Your task to perform on an android device: change the clock style Image 0: 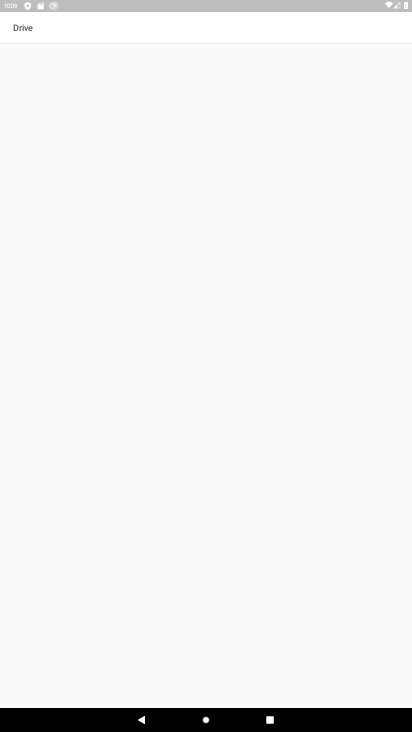
Step 0: press home button
Your task to perform on an android device: change the clock style Image 1: 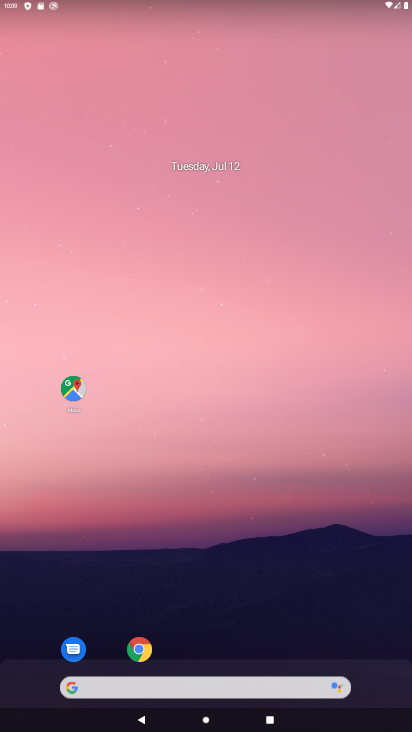
Step 1: drag from (366, 657) to (337, 112)
Your task to perform on an android device: change the clock style Image 2: 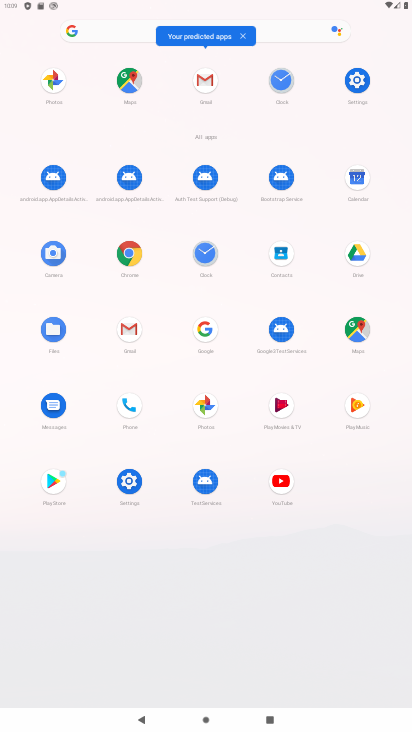
Step 2: click (204, 252)
Your task to perform on an android device: change the clock style Image 3: 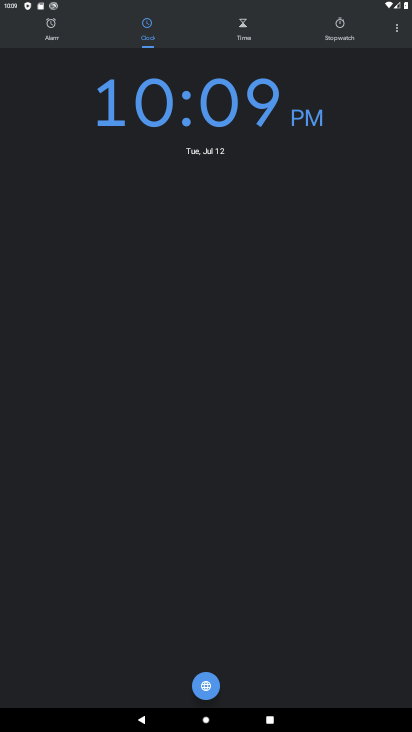
Step 3: click (397, 33)
Your task to perform on an android device: change the clock style Image 4: 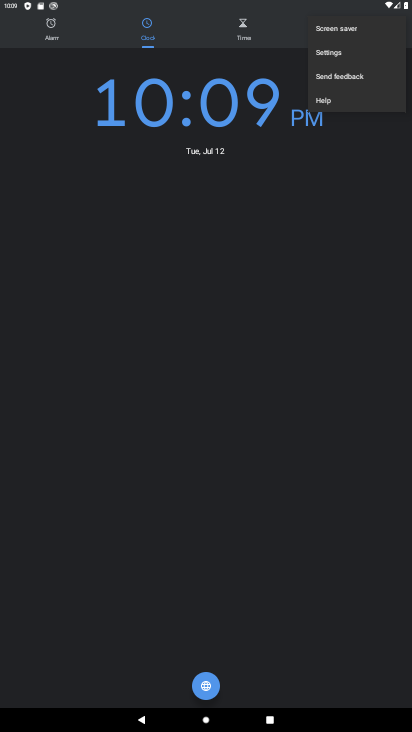
Step 4: click (324, 54)
Your task to perform on an android device: change the clock style Image 5: 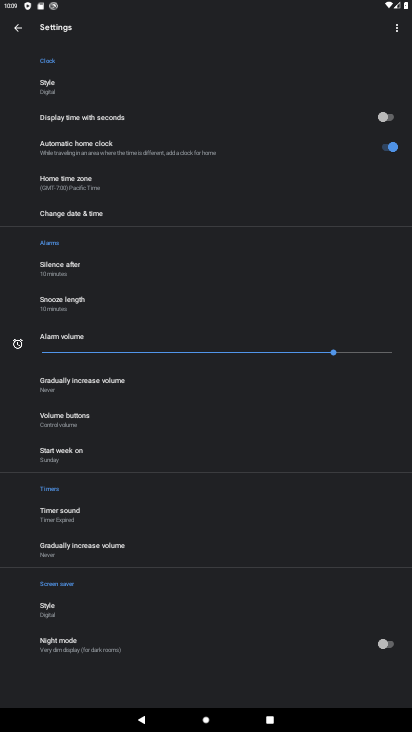
Step 5: click (50, 87)
Your task to perform on an android device: change the clock style Image 6: 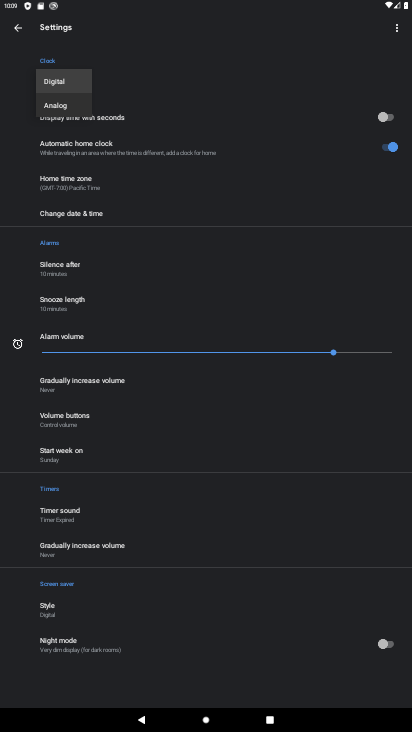
Step 6: click (54, 108)
Your task to perform on an android device: change the clock style Image 7: 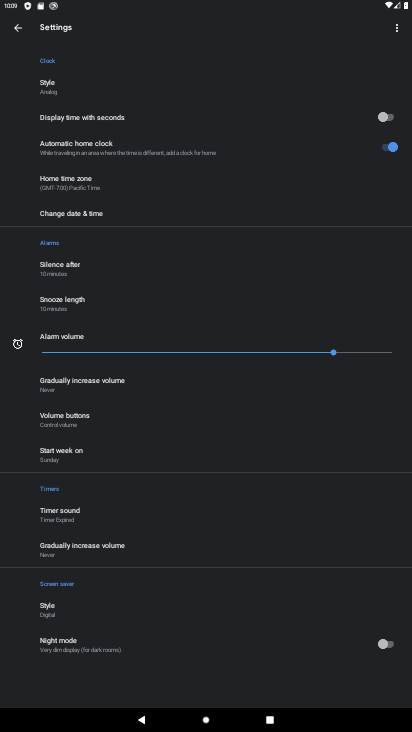
Step 7: task complete